Your task to perform on an android device: change text size in settings app Image 0: 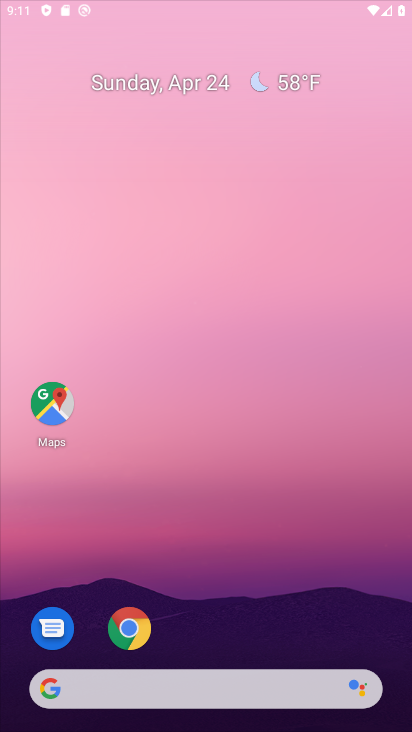
Step 0: click (202, 2)
Your task to perform on an android device: change text size in settings app Image 1: 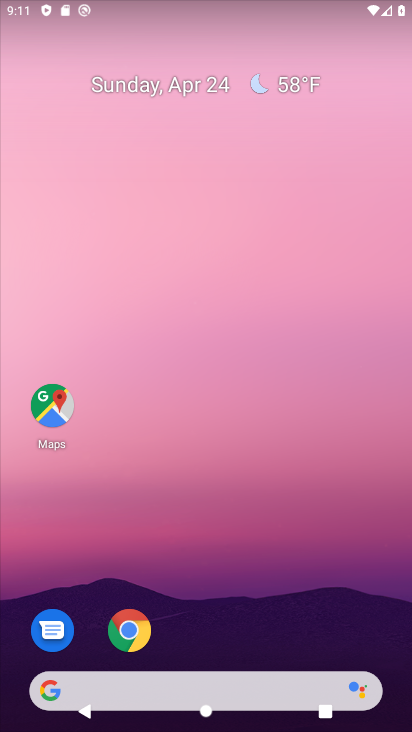
Step 1: drag from (201, 713) to (193, 229)
Your task to perform on an android device: change text size in settings app Image 2: 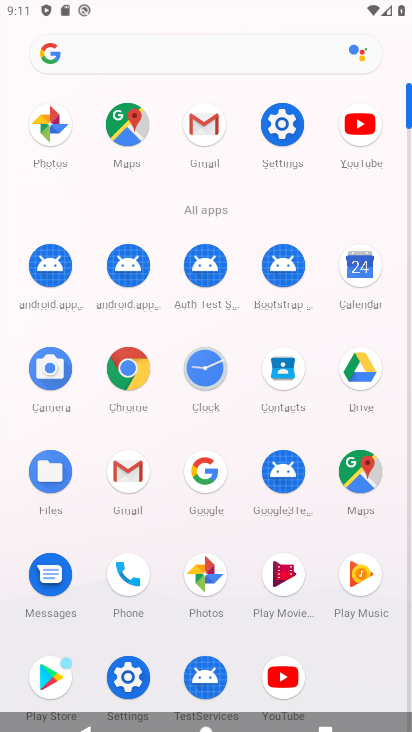
Step 2: click (277, 132)
Your task to perform on an android device: change text size in settings app Image 3: 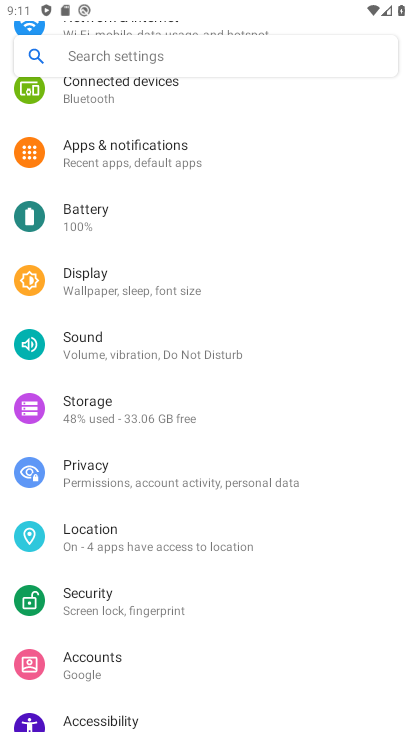
Step 3: click (139, 294)
Your task to perform on an android device: change text size in settings app Image 4: 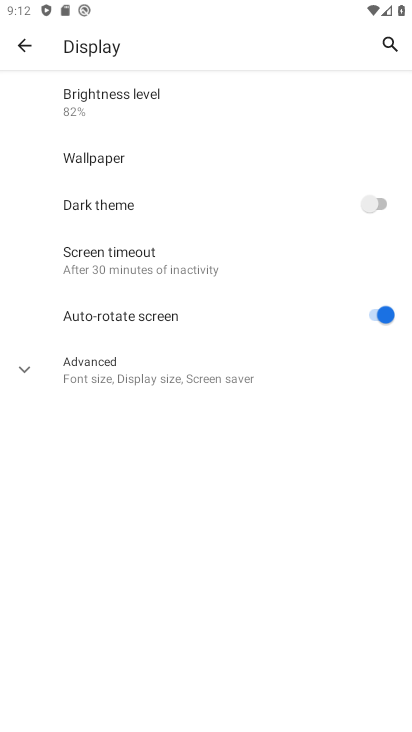
Step 4: click (136, 374)
Your task to perform on an android device: change text size in settings app Image 5: 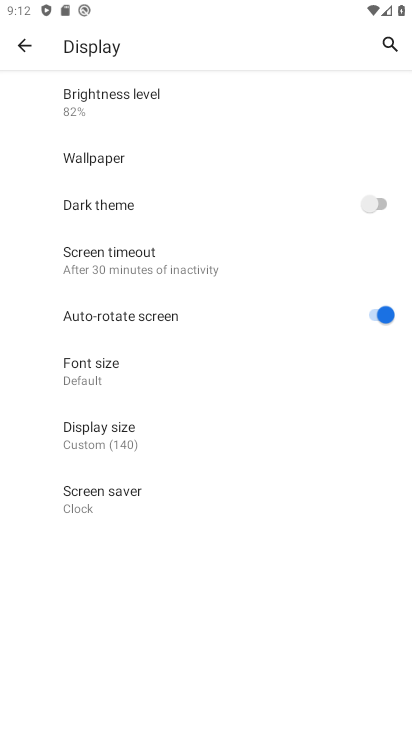
Step 5: click (132, 381)
Your task to perform on an android device: change text size in settings app Image 6: 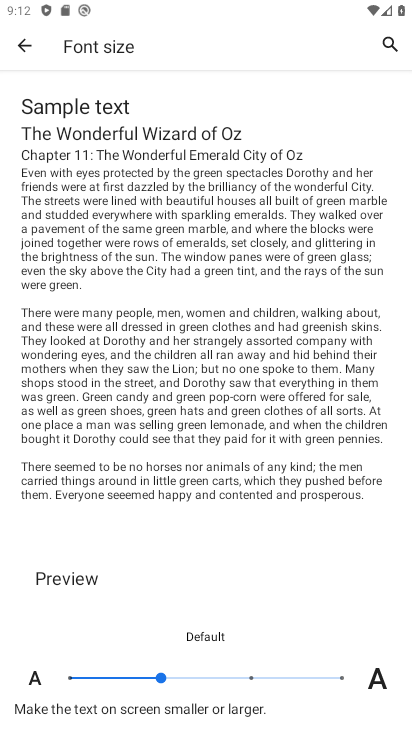
Step 6: click (247, 681)
Your task to perform on an android device: change text size in settings app Image 7: 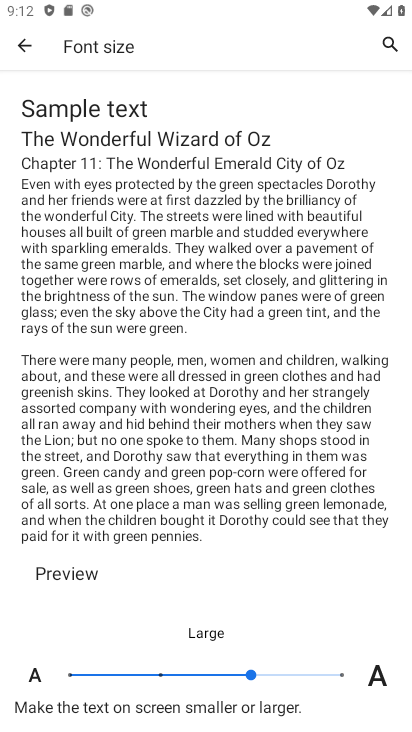
Step 7: task complete